Your task to perform on an android device: manage bookmarks in the chrome app Image 0: 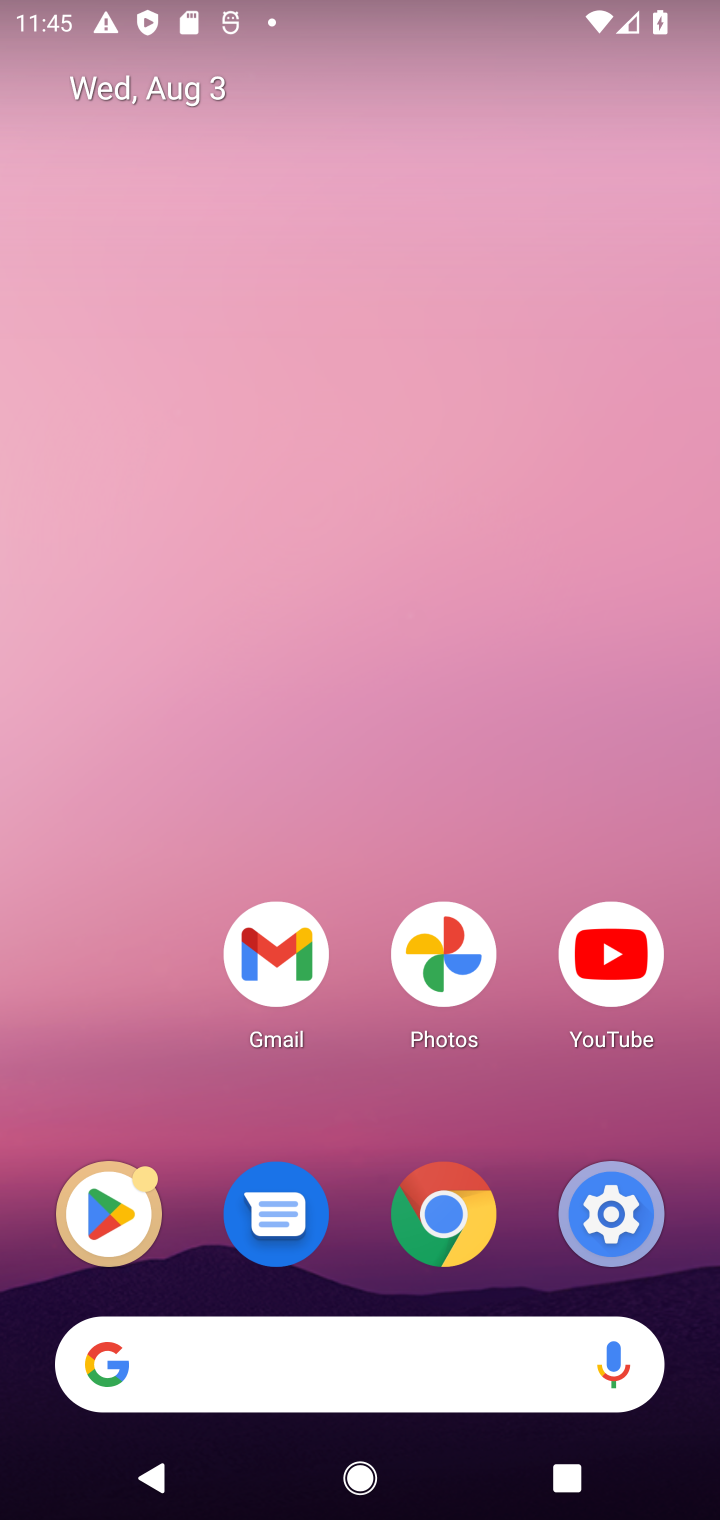
Step 0: click (439, 1219)
Your task to perform on an android device: manage bookmarks in the chrome app Image 1: 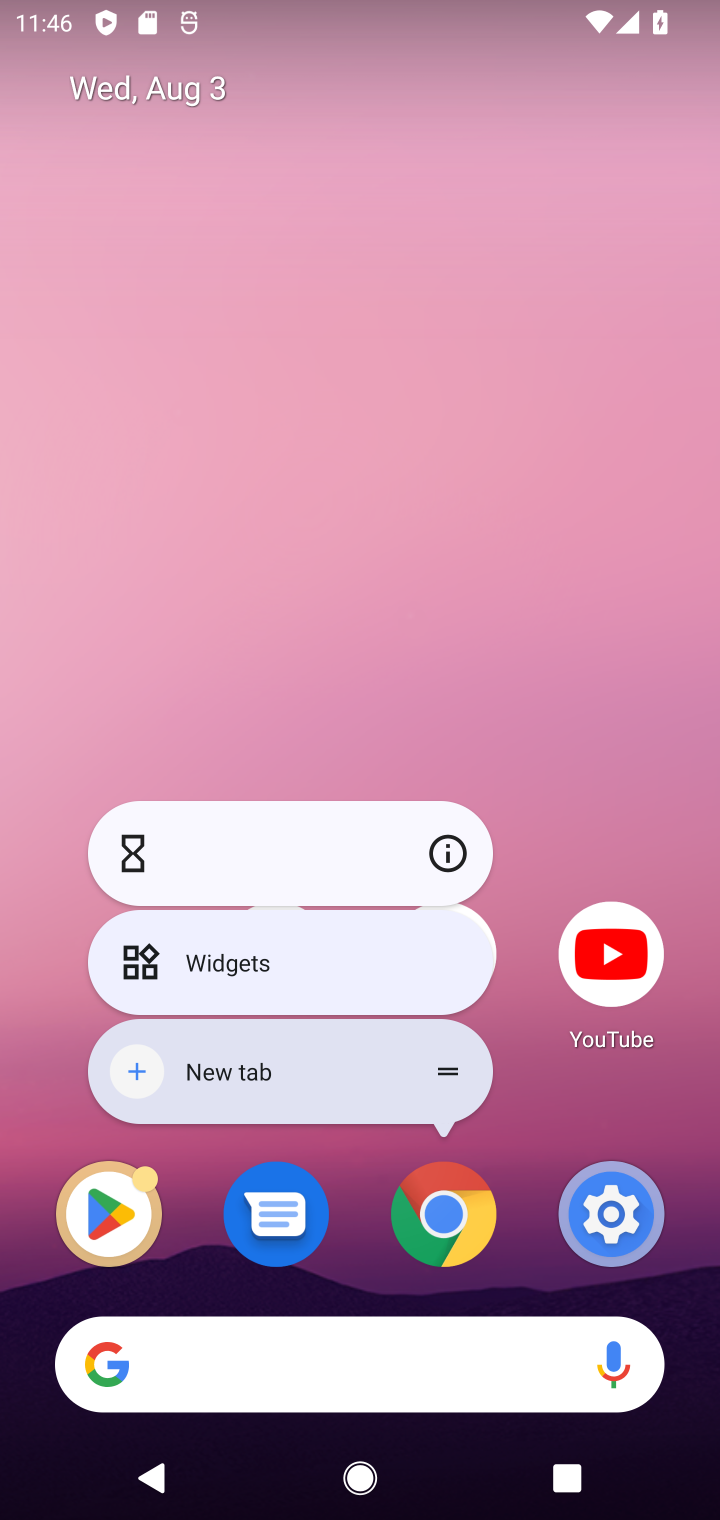
Step 1: click (439, 1219)
Your task to perform on an android device: manage bookmarks in the chrome app Image 2: 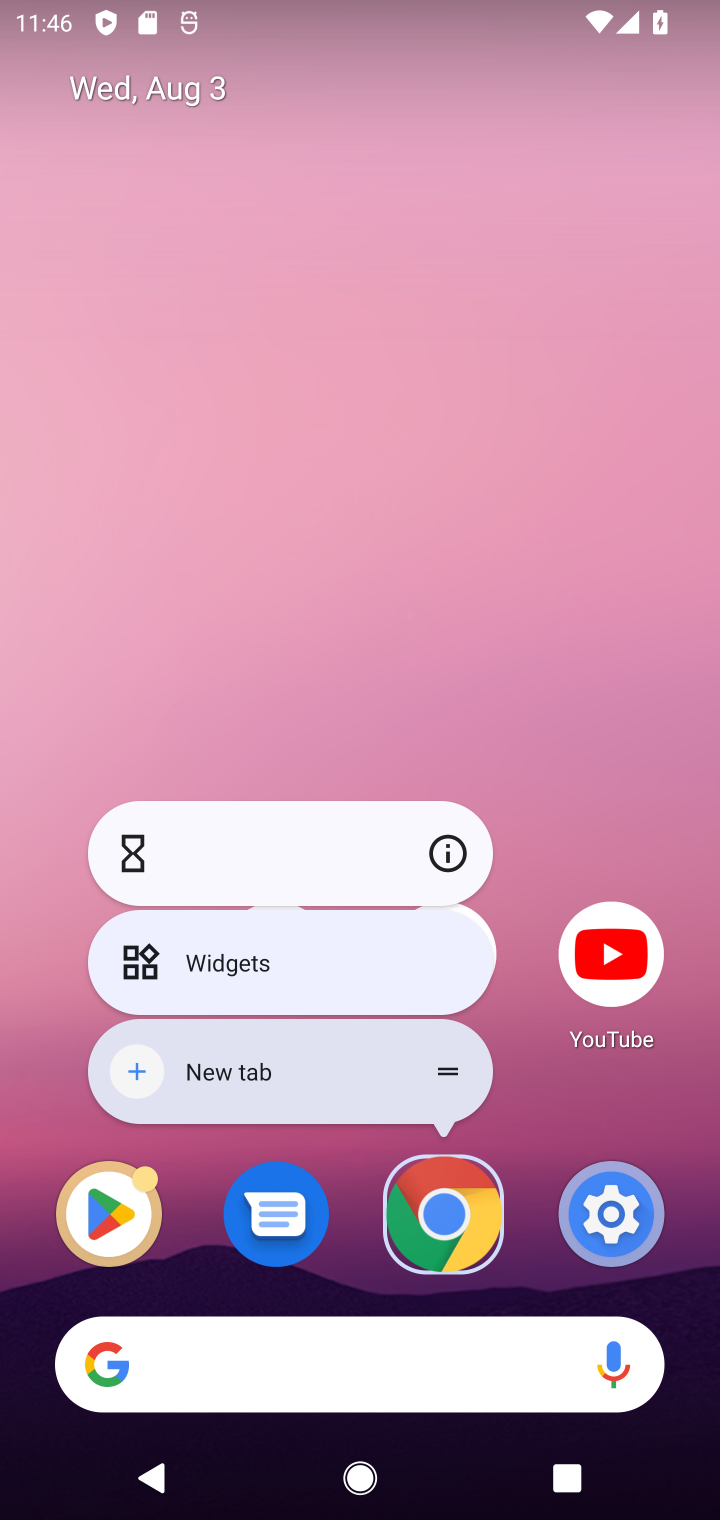
Step 2: click (439, 1219)
Your task to perform on an android device: manage bookmarks in the chrome app Image 3: 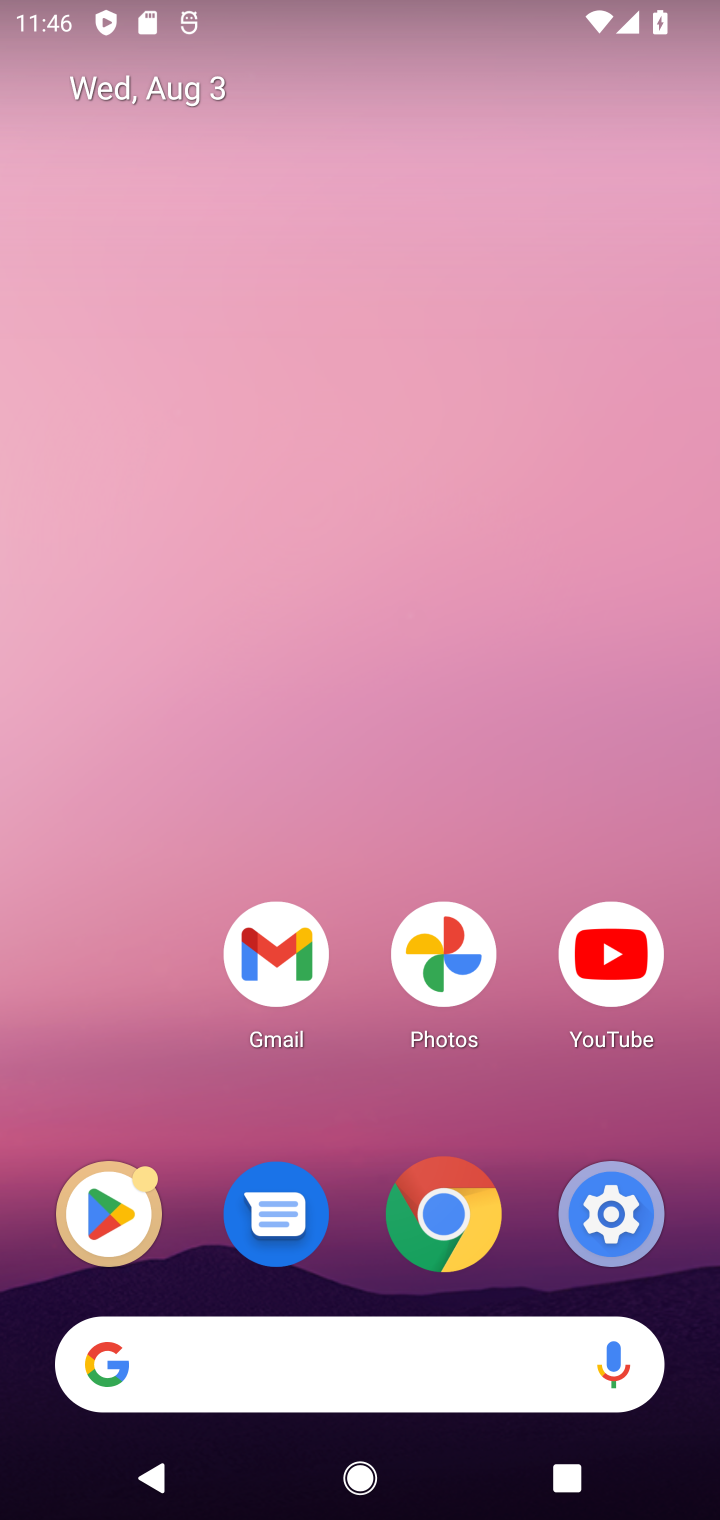
Step 3: click (439, 1219)
Your task to perform on an android device: manage bookmarks in the chrome app Image 4: 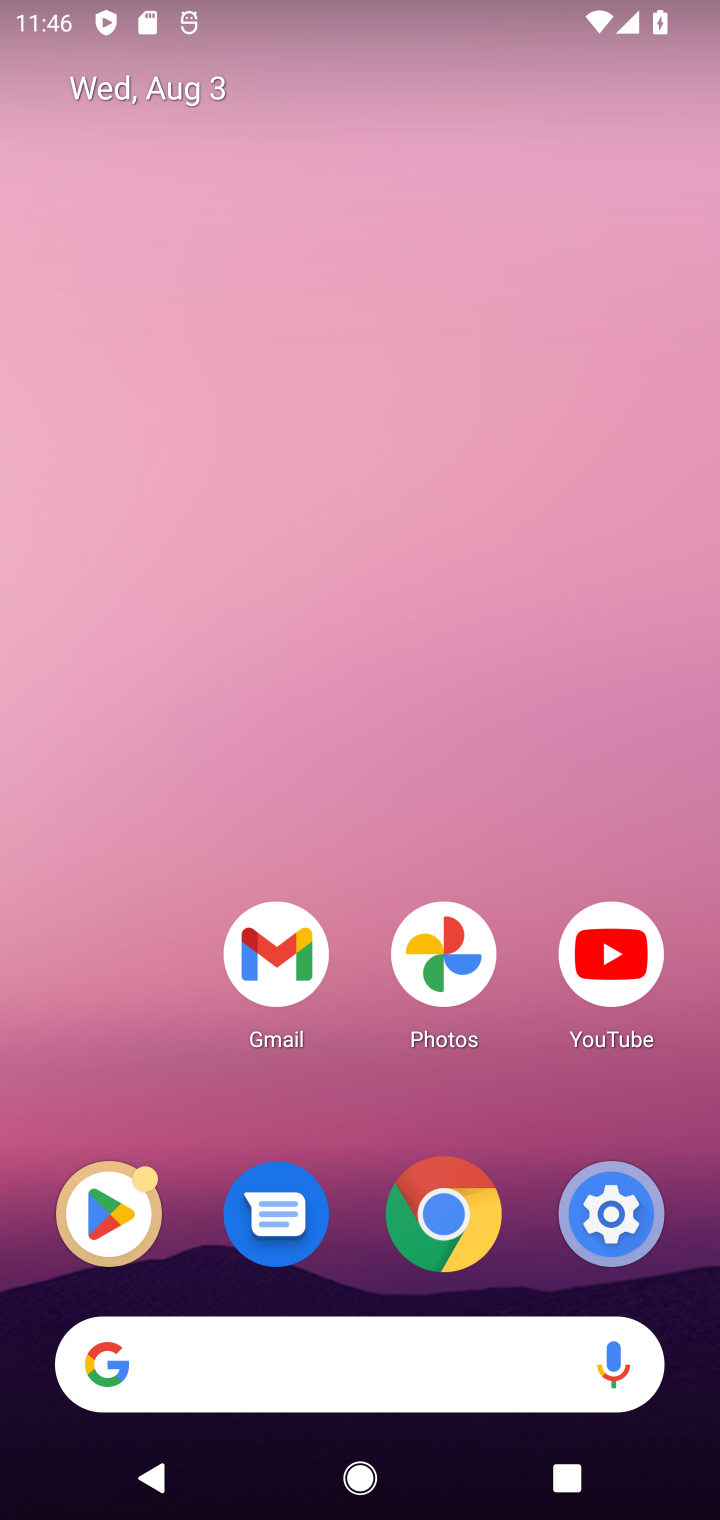
Step 4: click (439, 1219)
Your task to perform on an android device: manage bookmarks in the chrome app Image 5: 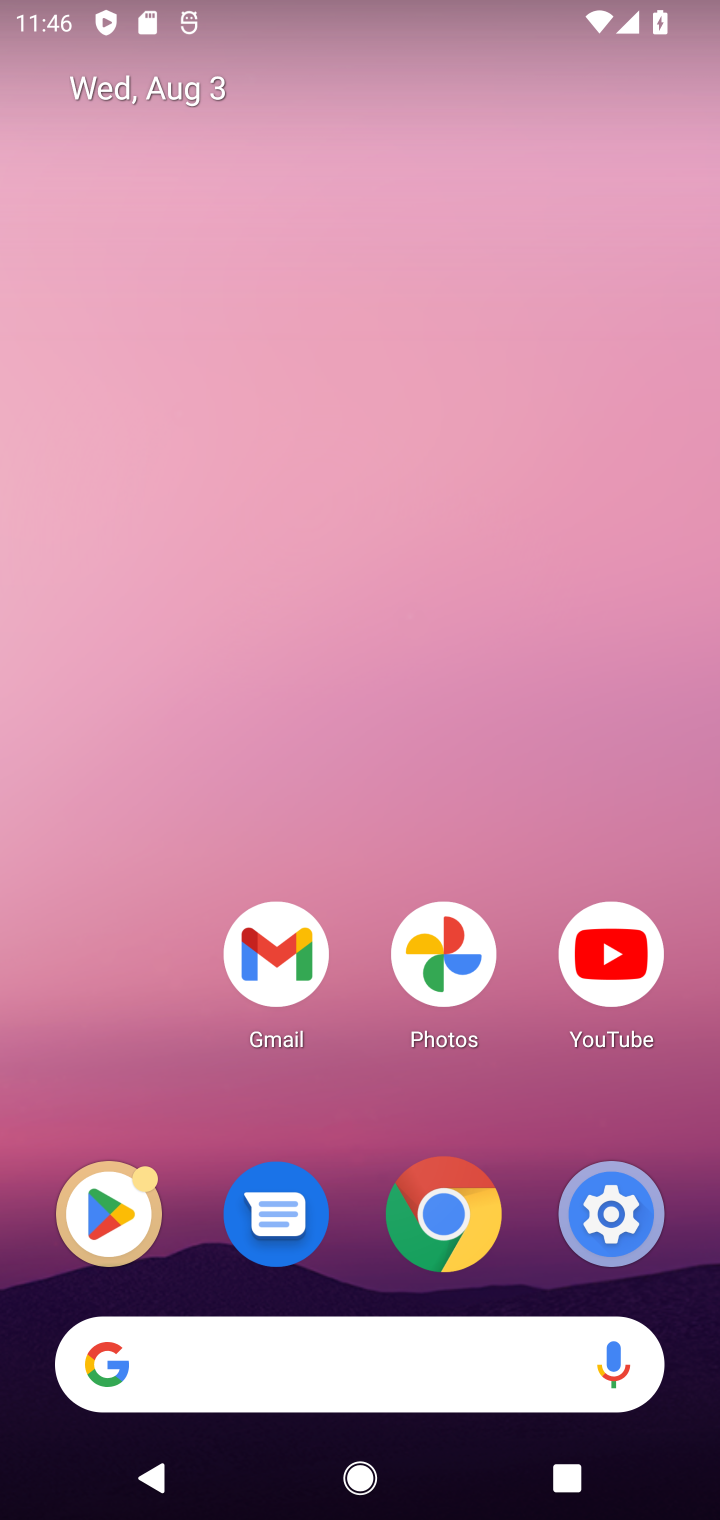
Step 5: click (439, 1219)
Your task to perform on an android device: manage bookmarks in the chrome app Image 6: 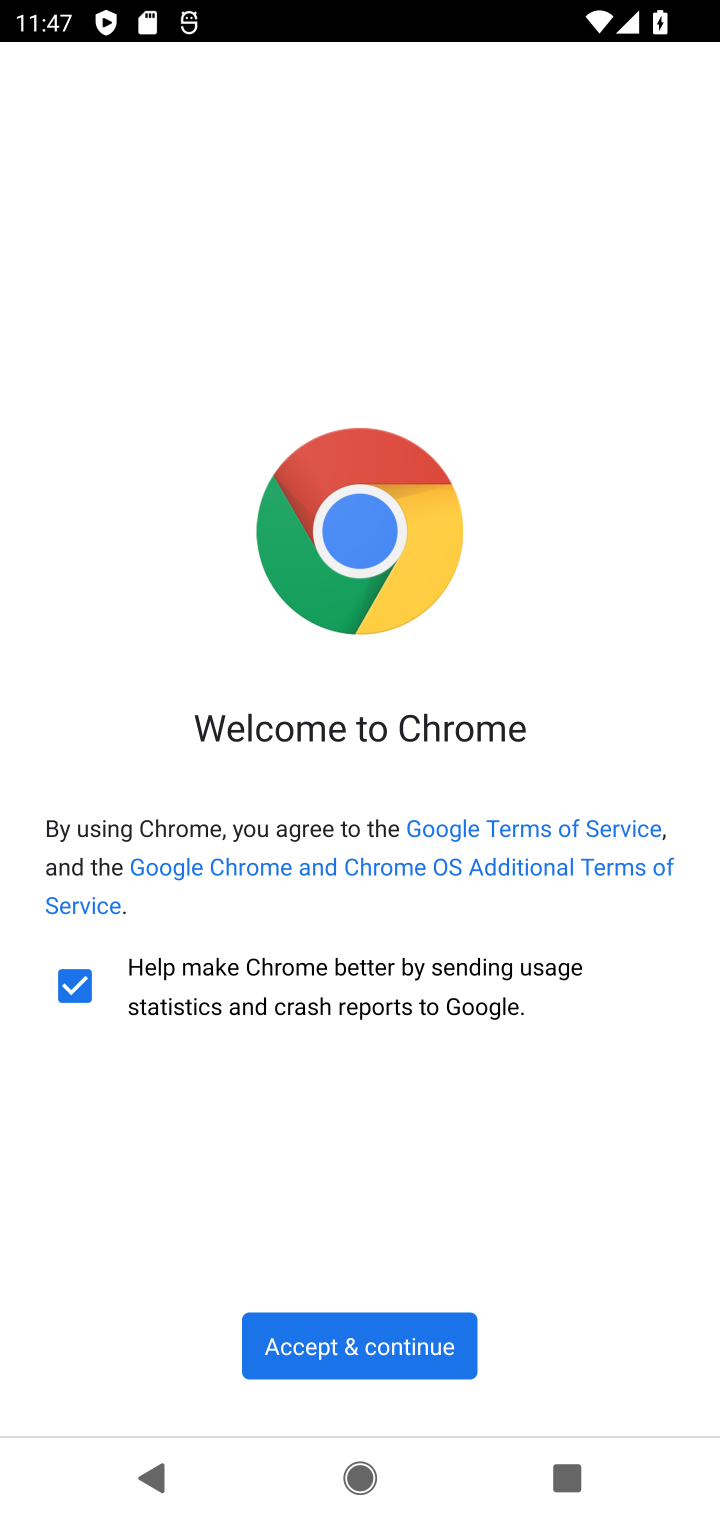
Step 6: click (392, 1351)
Your task to perform on an android device: manage bookmarks in the chrome app Image 7: 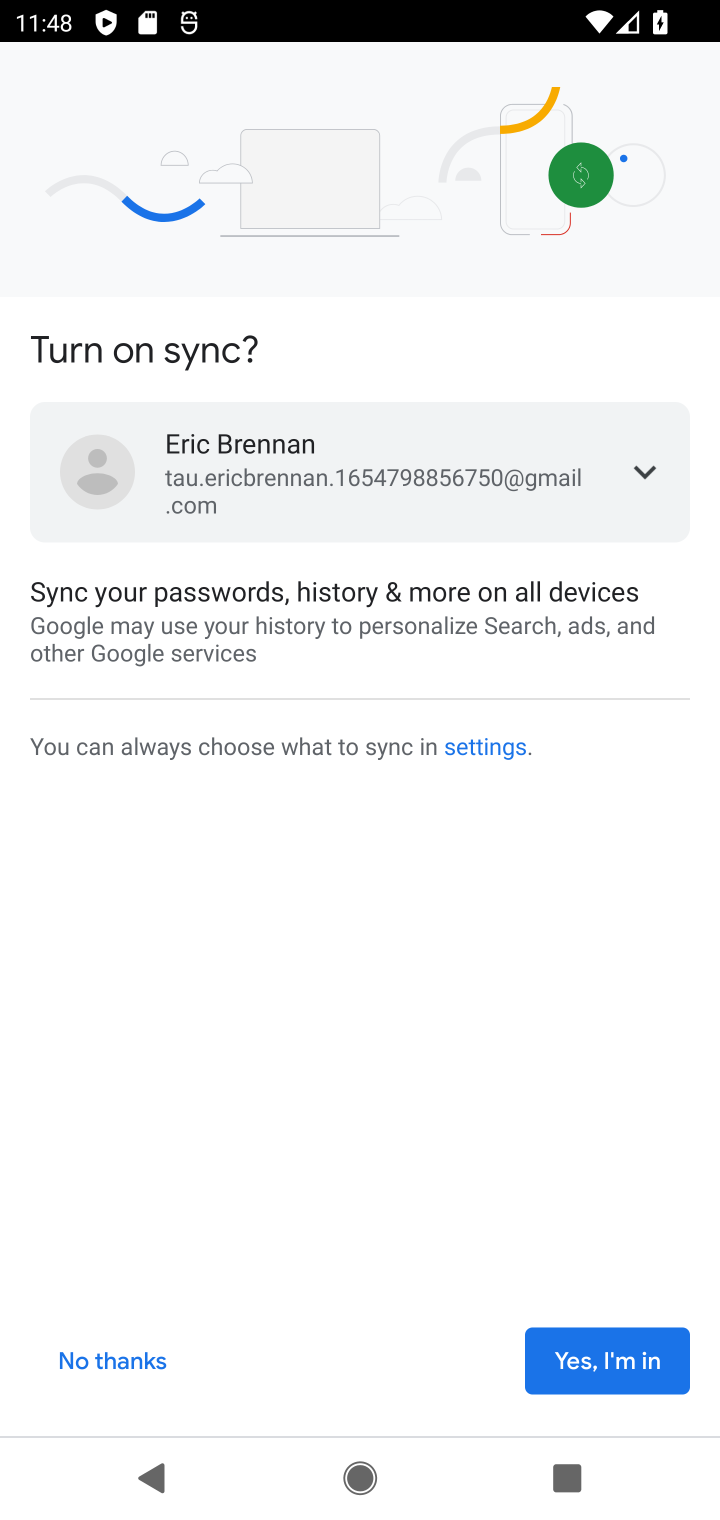
Step 7: click (576, 1343)
Your task to perform on an android device: manage bookmarks in the chrome app Image 8: 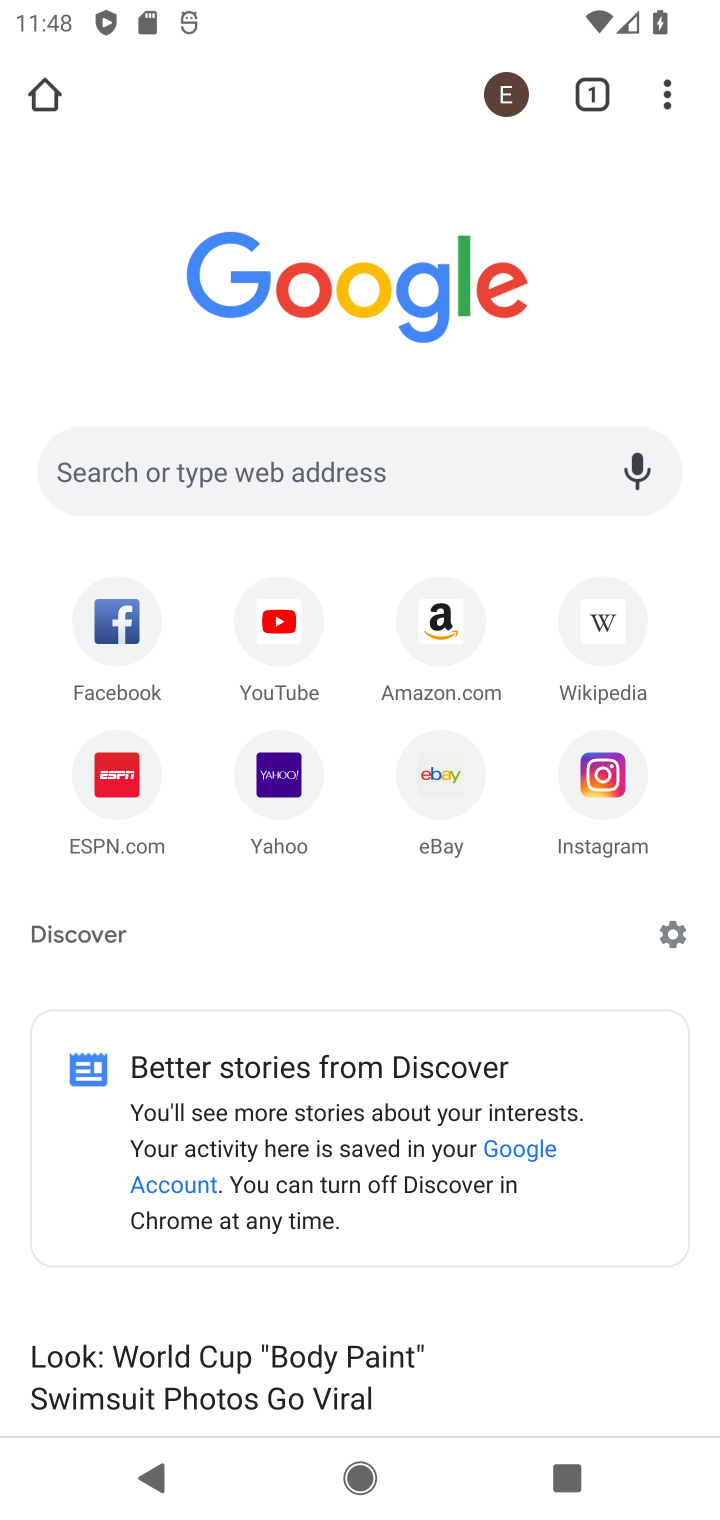
Step 8: click (672, 92)
Your task to perform on an android device: manage bookmarks in the chrome app Image 9: 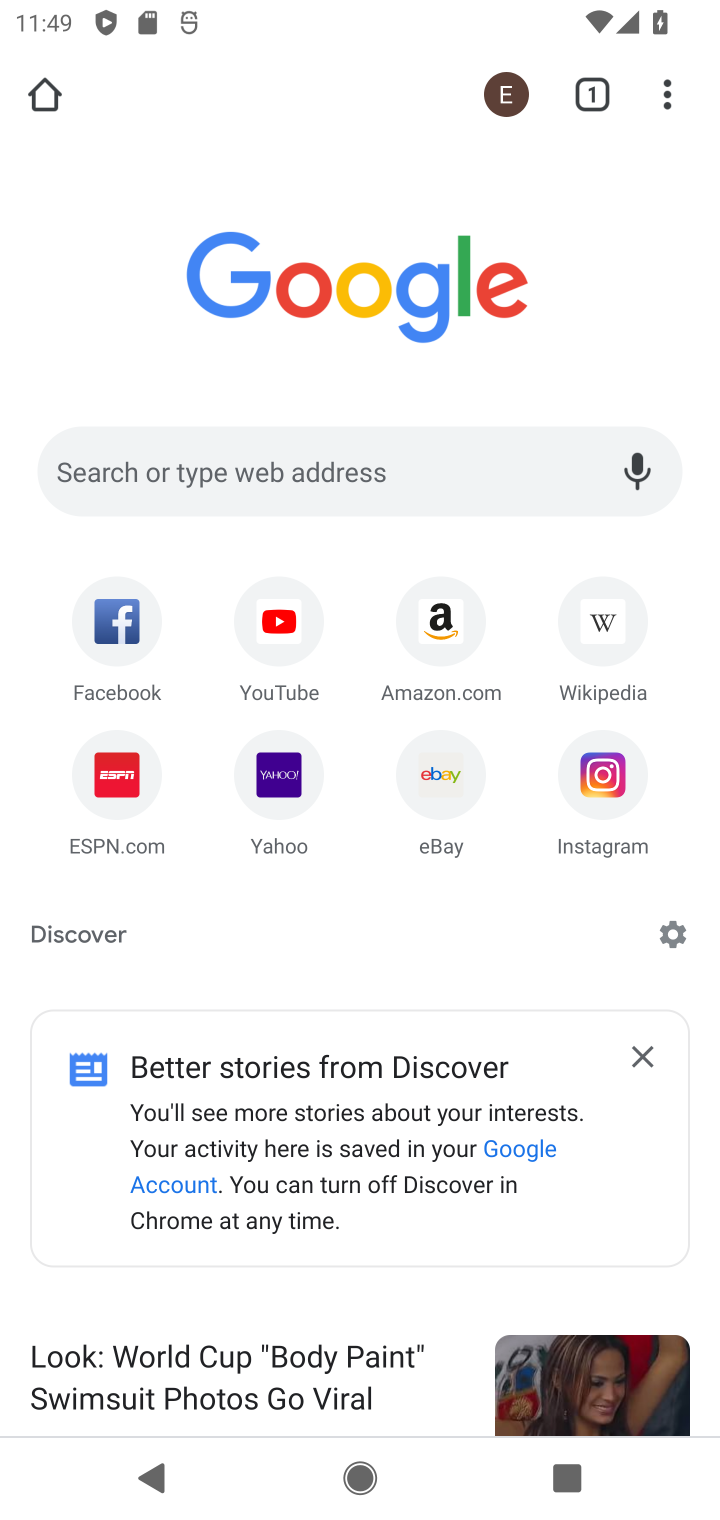
Step 9: click (666, 98)
Your task to perform on an android device: manage bookmarks in the chrome app Image 10: 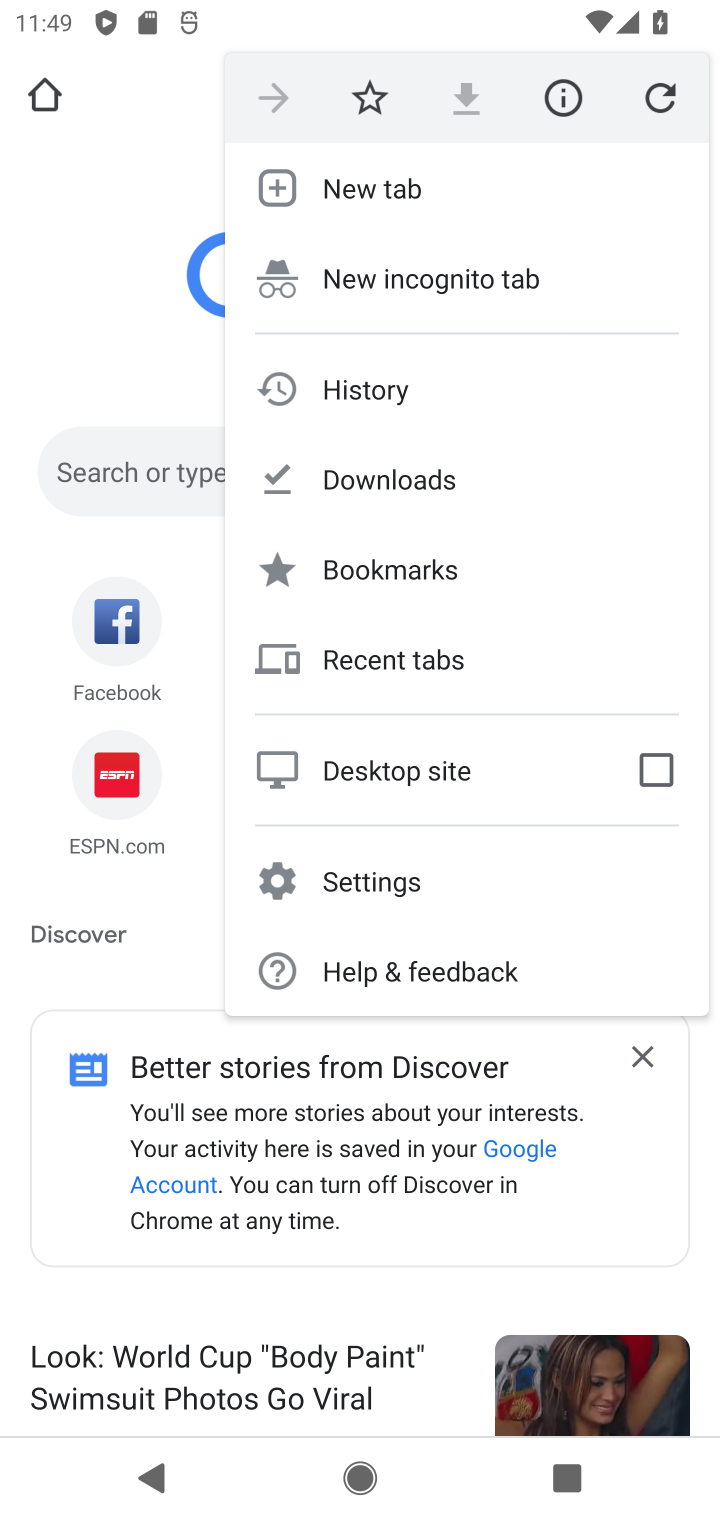
Step 10: click (429, 568)
Your task to perform on an android device: manage bookmarks in the chrome app Image 11: 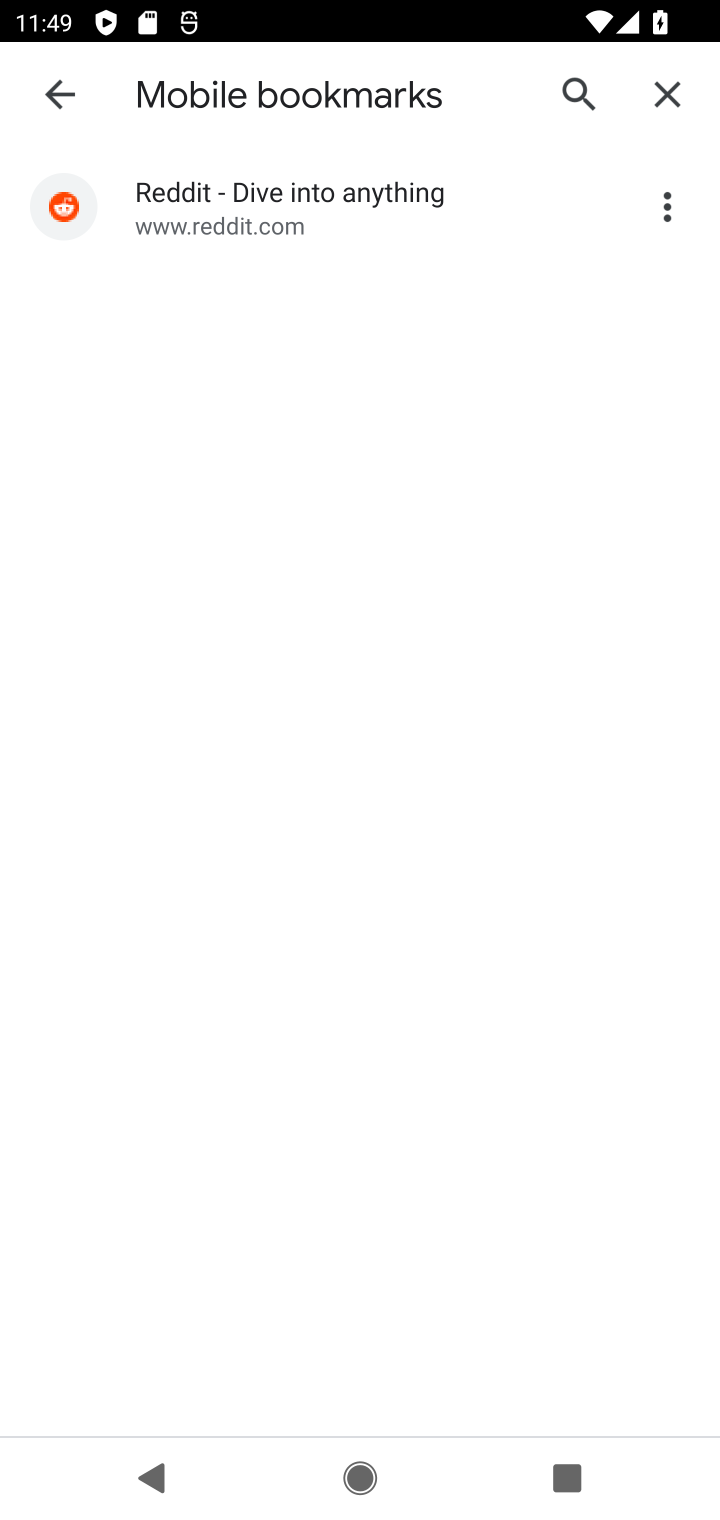
Step 11: click (663, 196)
Your task to perform on an android device: manage bookmarks in the chrome app Image 12: 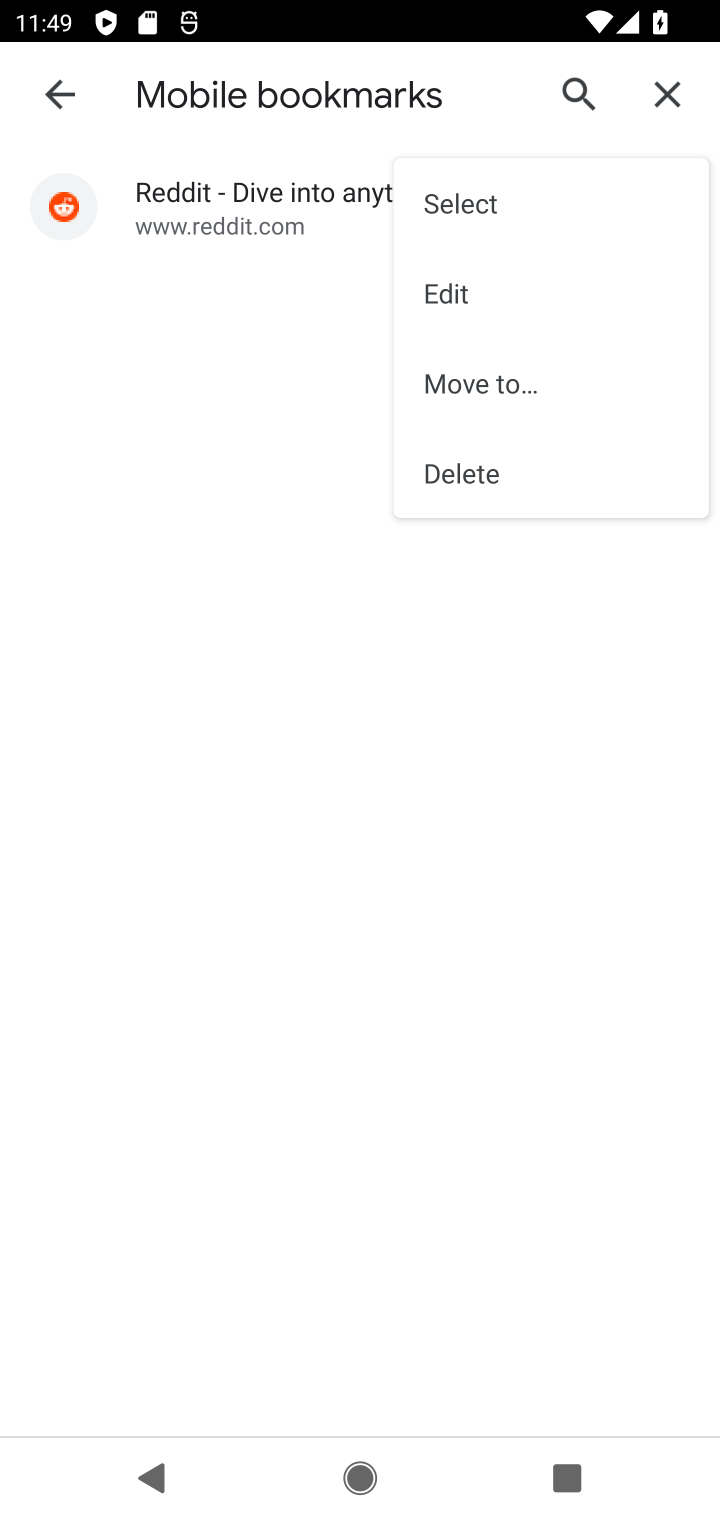
Step 12: click (496, 508)
Your task to perform on an android device: manage bookmarks in the chrome app Image 13: 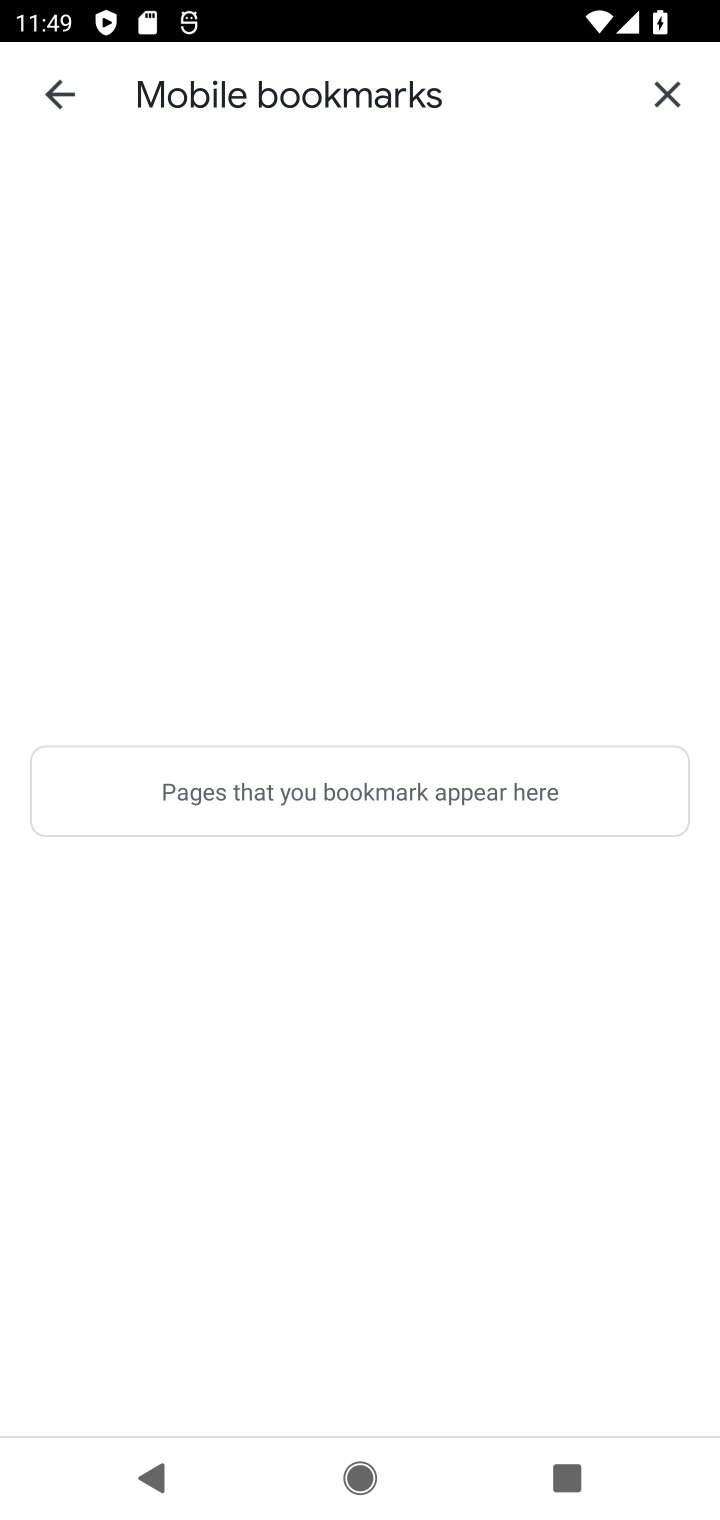
Step 13: task complete